Your task to perform on an android device: set the stopwatch Image 0: 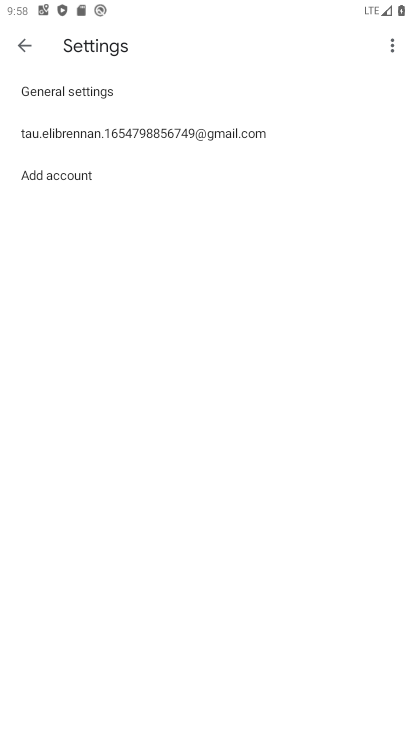
Step 0: press home button
Your task to perform on an android device: set the stopwatch Image 1: 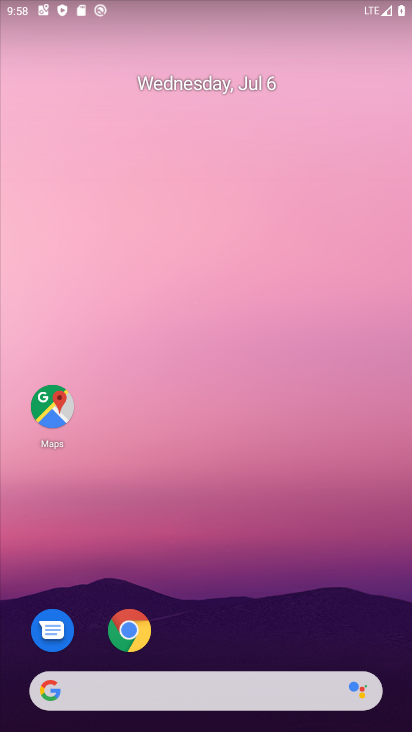
Step 1: drag from (368, 632) to (351, 109)
Your task to perform on an android device: set the stopwatch Image 2: 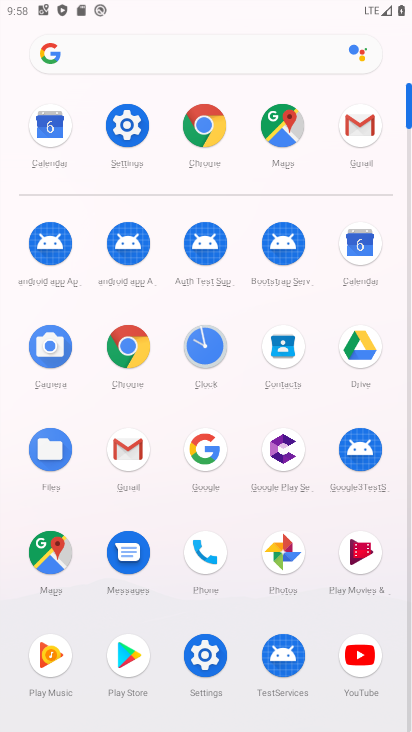
Step 2: click (200, 346)
Your task to perform on an android device: set the stopwatch Image 3: 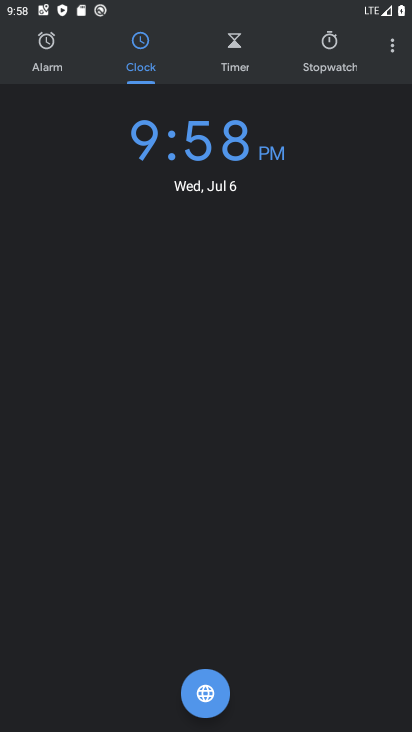
Step 3: click (331, 46)
Your task to perform on an android device: set the stopwatch Image 4: 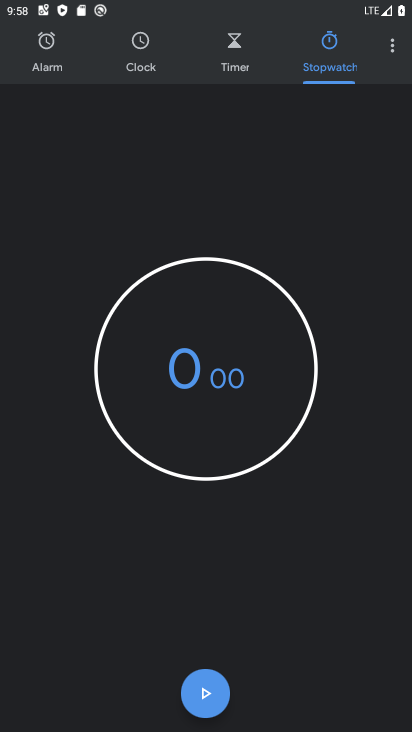
Step 4: task complete